Your task to perform on an android device: empty trash in google photos Image 0: 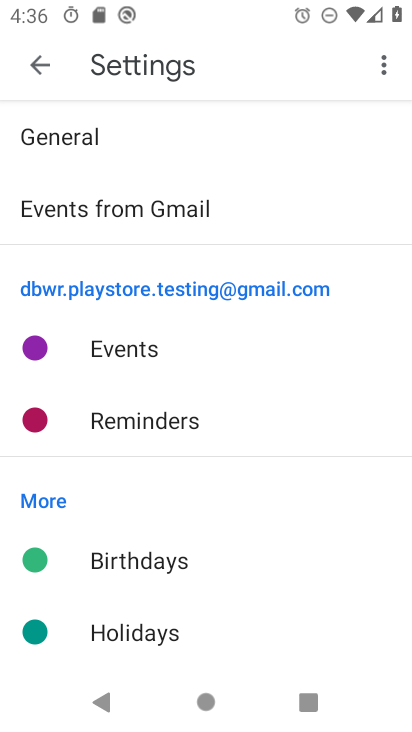
Step 0: press home button
Your task to perform on an android device: empty trash in google photos Image 1: 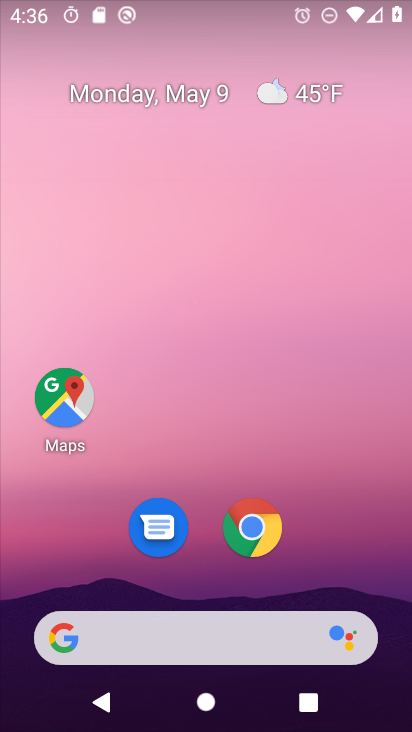
Step 1: drag from (399, 584) to (272, 56)
Your task to perform on an android device: empty trash in google photos Image 2: 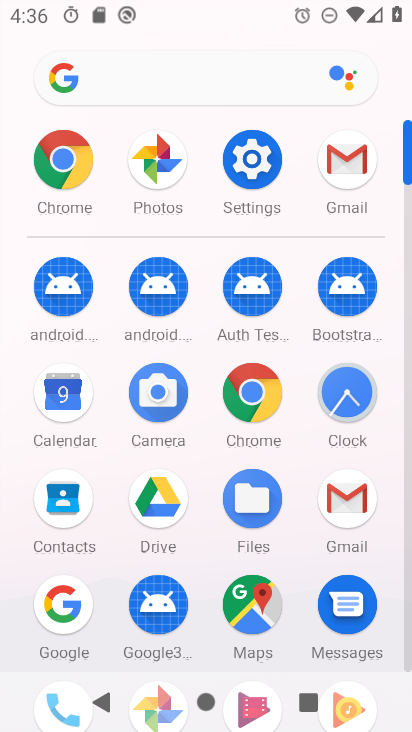
Step 2: click (151, 153)
Your task to perform on an android device: empty trash in google photos Image 3: 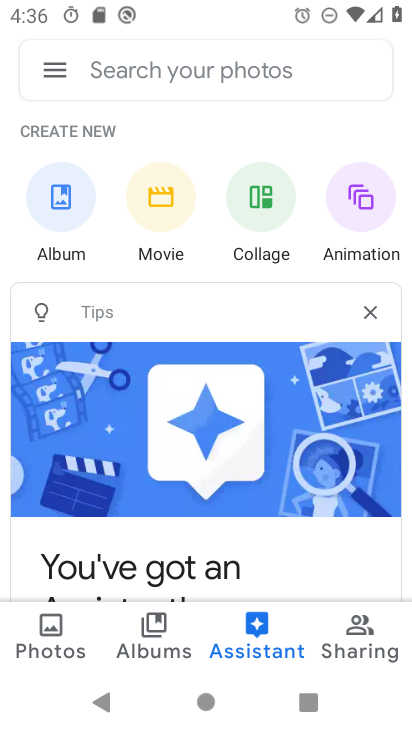
Step 3: click (52, 79)
Your task to perform on an android device: empty trash in google photos Image 4: 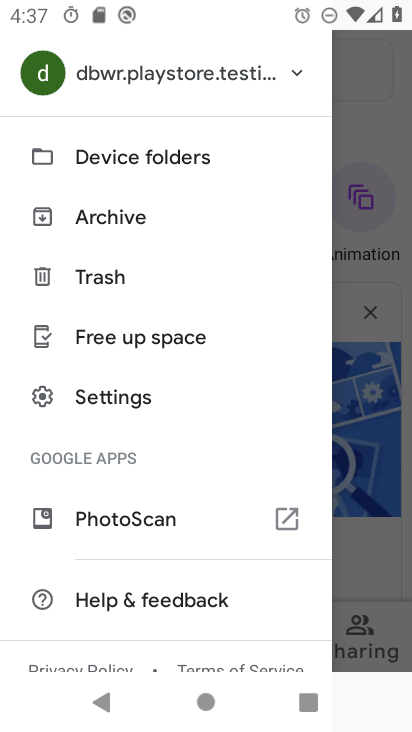
Step 4: click (176, 279)
Your task to perform on an android device: empty trash in google photos Image 5: 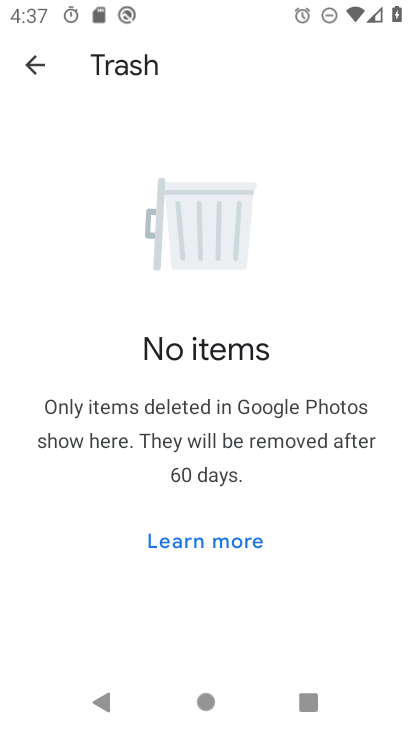
Step 5: task complete